Your task to perform on an android device: turn on the 24-hour format for clock Image 0: 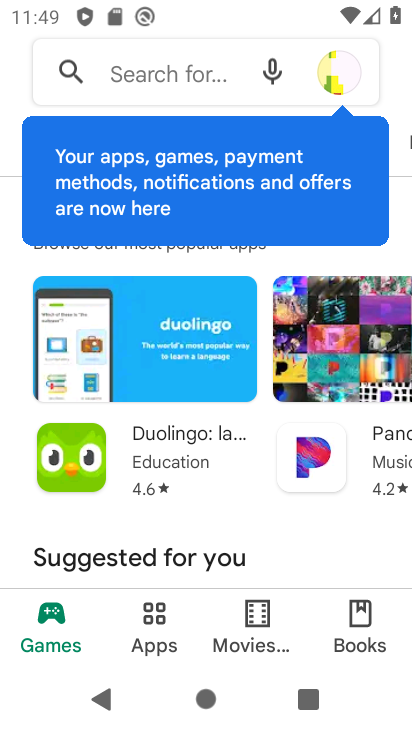
Step 0: press home button
Your task to perform on an android device: turn on the 24-hour format for clock Image 1: 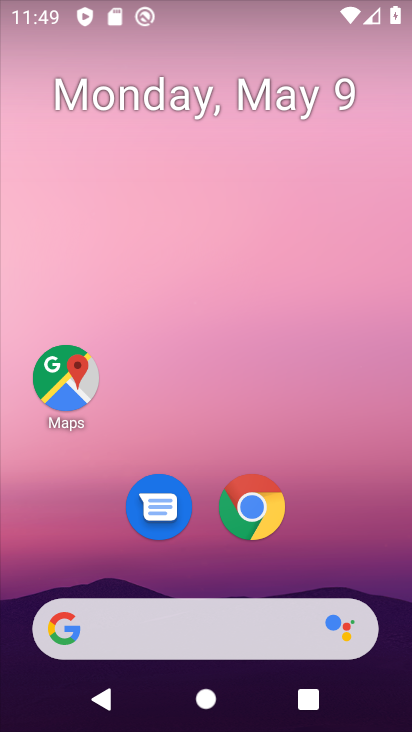
Step 1: drag from (325, 507) to (288, 22)
Your task to perform on an android device: turn on the 24-hour format for clock Image 2: 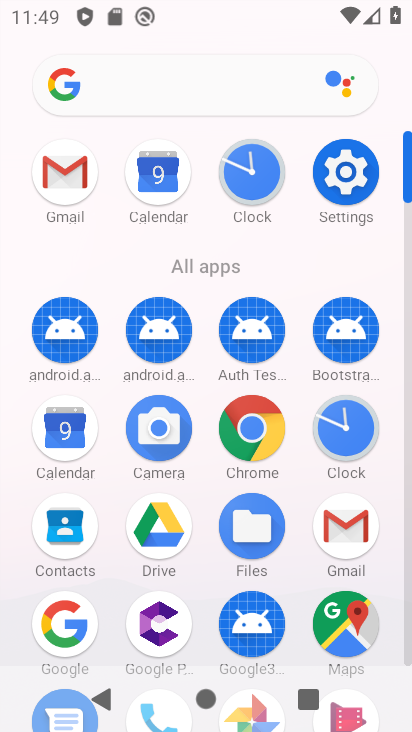
Step 2: click (268, 199)
Your task to perform on an android device: turn on the 24-hour format for clock Image 3: 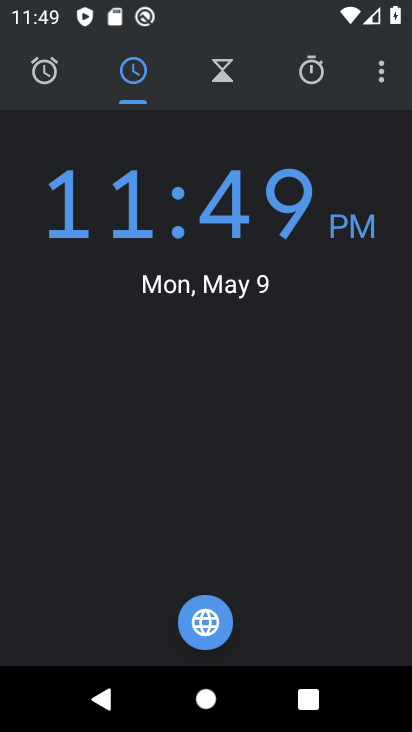
Step 3: click (384, 90)
Your task to perform on an android device: turn on the 24-hour format for clock Image 4: 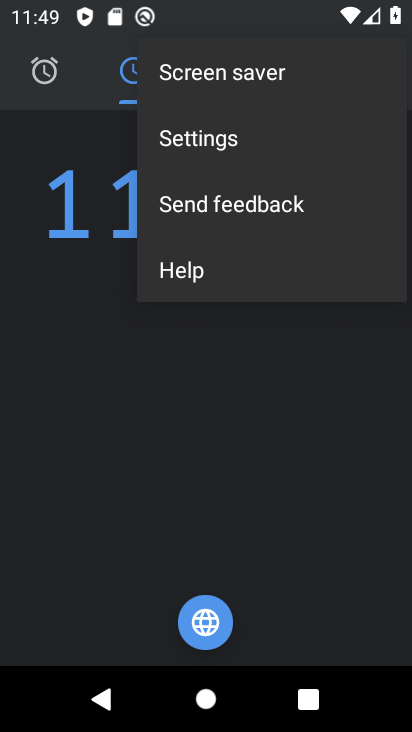
Step 4: click (224, 148)
Your task to perform on an android device: turn on the 24-hour format for clock Image 5: 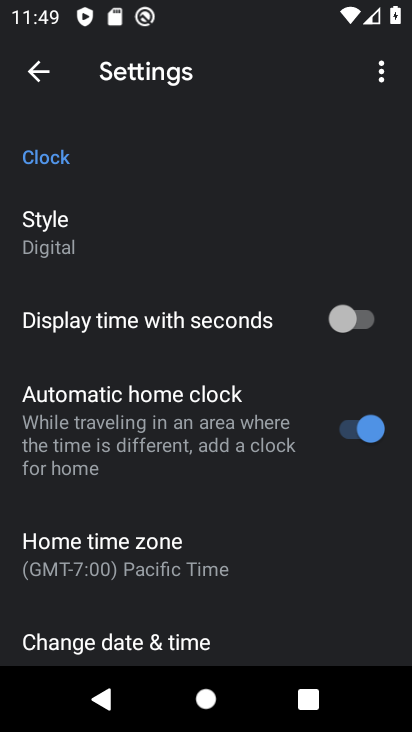
Step 5: click (165, 635)
Your task to perform on an android device: turn on the 24-hour format for clock Image 6: 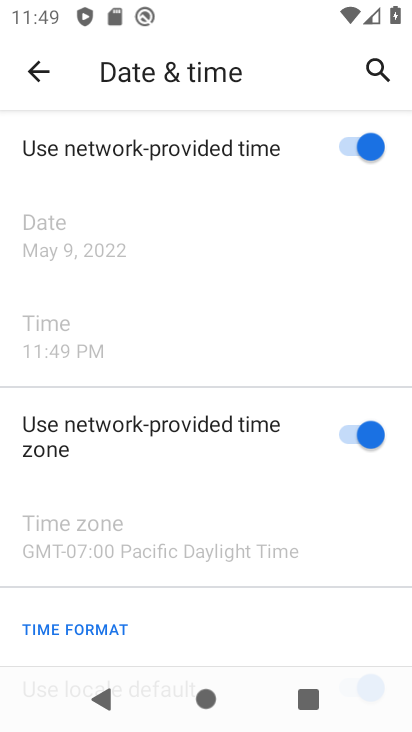
Step 6: drag from (265, 587) to (230, 165)
Your task to perform on an android device: turn on the 24-hour format for clock Image 7: 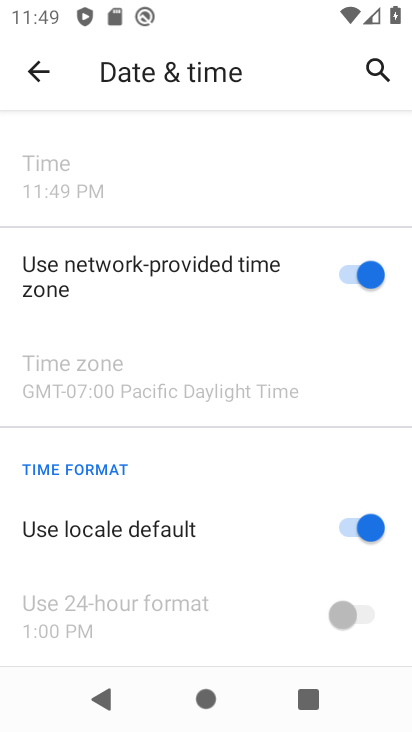
Step 7: click (356, 531)
Your task to perform on an android device: turn on the 24-hour format for clock Image 8: 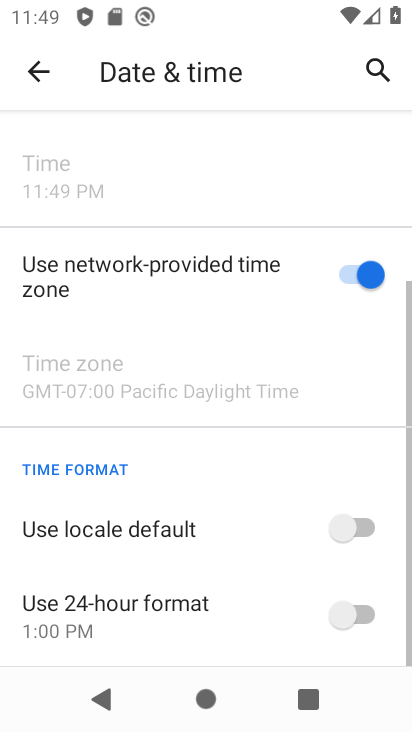
Step 8: click (353, 617)
Your task to perform on an android device: turn on the 24-hour format for clock Image 9: 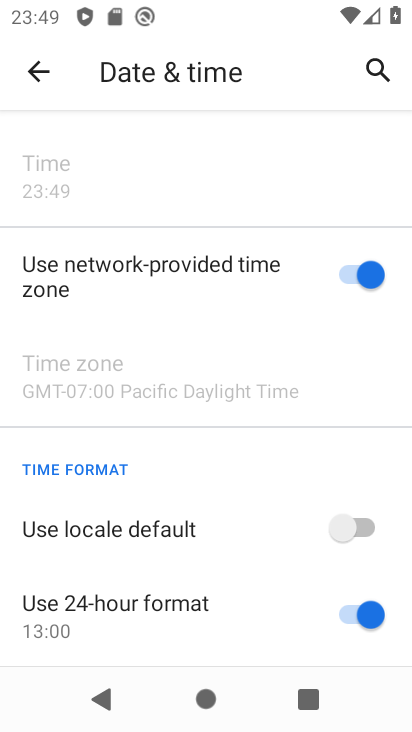
Step 9: task complete